Your task to perform on an android device: Open internet settings Image 0: 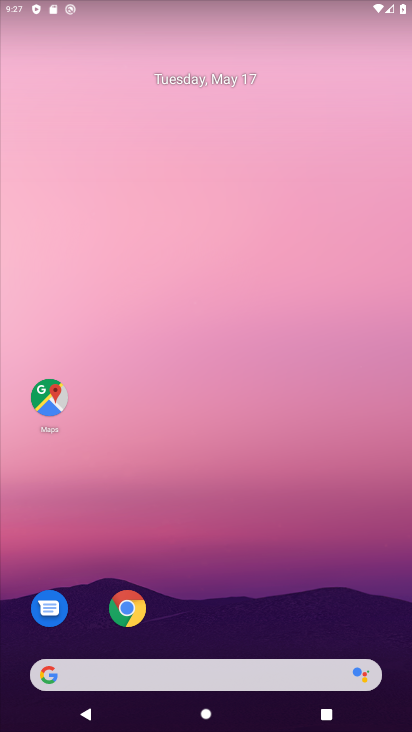
Step 0: drag from (197, 523) to (159, 86)
Your task to perform on an android device: Open internet settings Image 1: 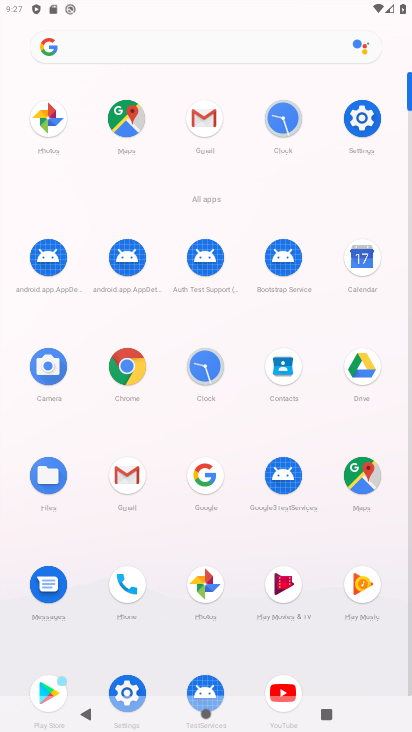
Step 1: click (354, 118)
Your task to perform on an android device: Open internet settings Image 2: 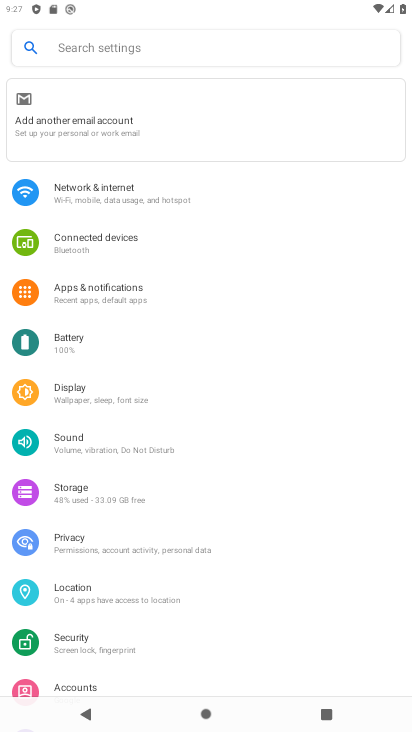
Step 2: click (88, 183)
Your task to perform on an android device: Open internet settings Image 3: 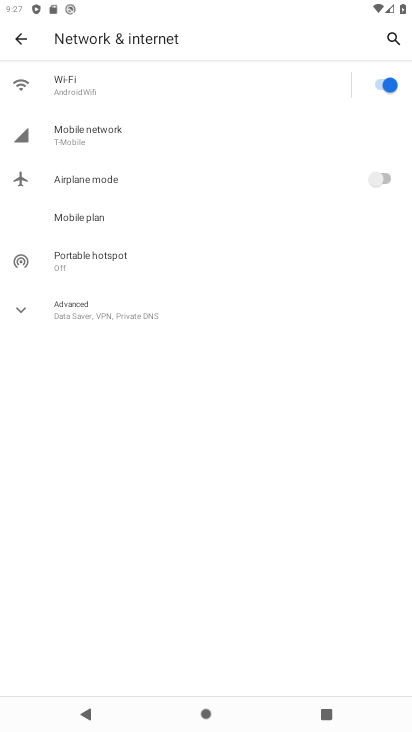
Step 3: click (95, 130)
Your task to perform on an android device: Open internet settings Image 4: 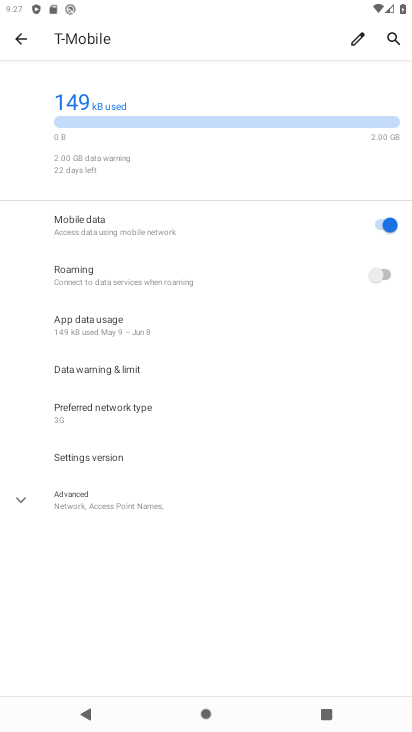
Step 4: task complete